Your task to perform on an android device: Open Android settings Image 0: 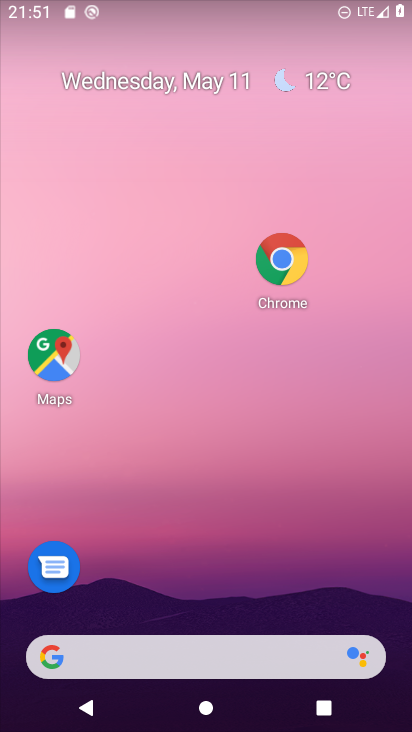
Step 0: drag from (175, 641) to (302, 137)
Your task to perform on an android device: Open Android settings Image 1: 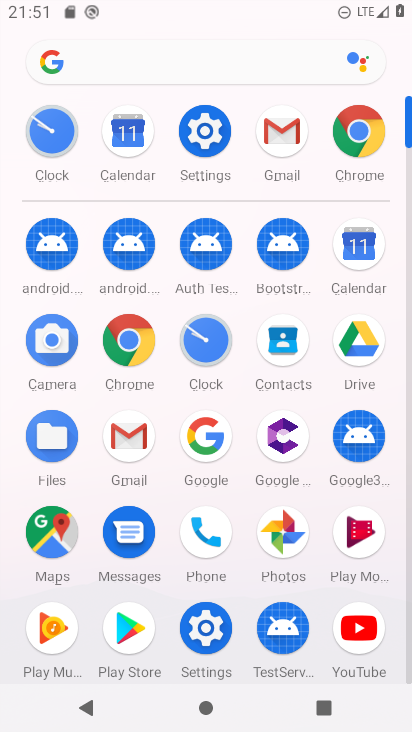
Step 1: click (208, 134)
Your task to perform on an android device: Open Android settings Image 2: 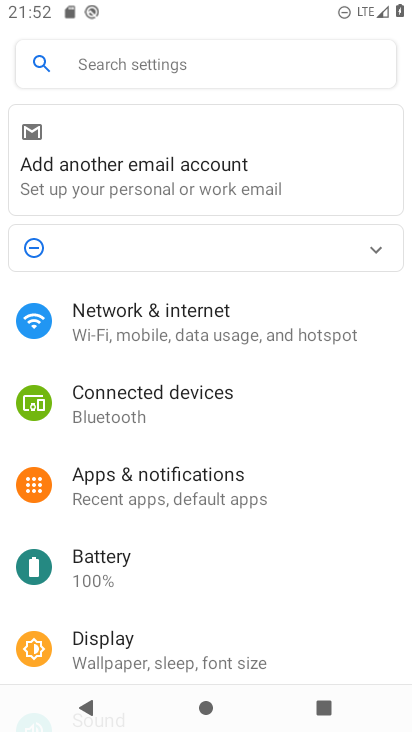
Step 2: task complete